Your task to perform on an android device: turn smart compose on in the gmail app Image 0: 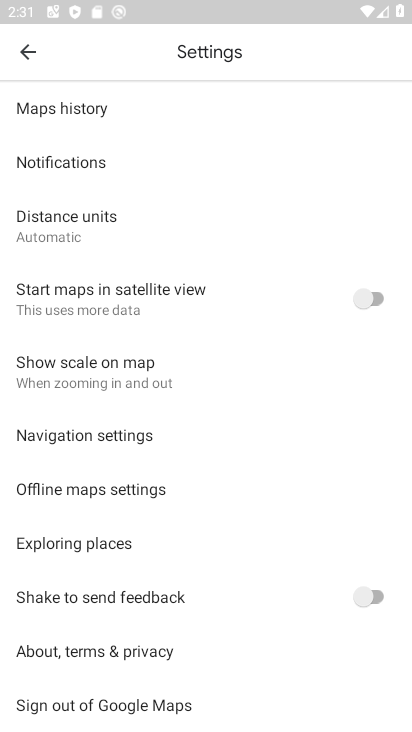
Step 0: press home button
Your task to perform on an android device: turn smart compose on in the gmail app Image 1: 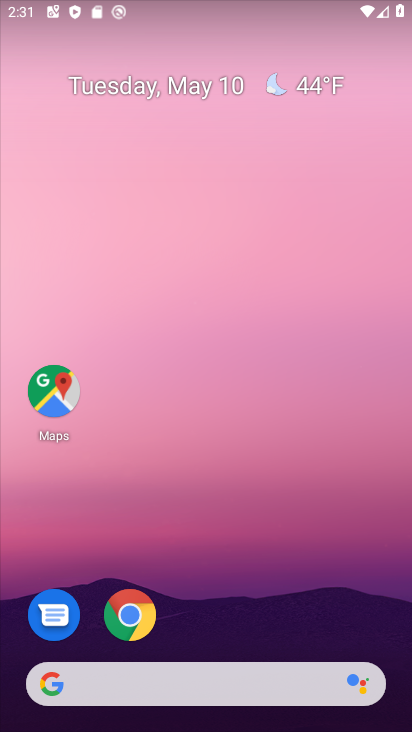
Step 1: drag from (256, 617) to (281, 89)
Your task to perform on an android device: turn smart compose on in the gmail app Image 2: 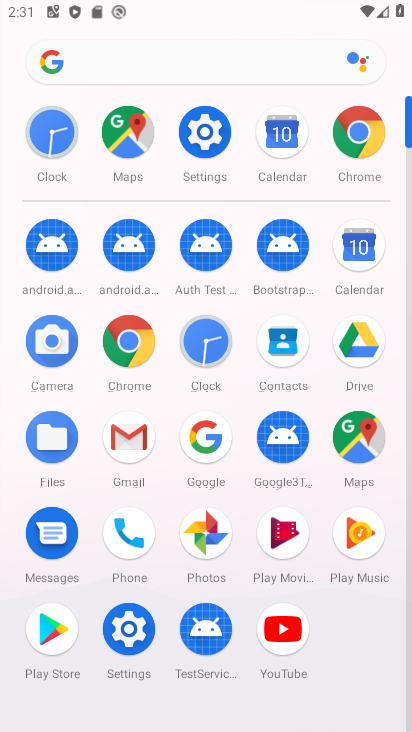
Step 2: click (132, 432)
Your task to perform on an android device: turn smart compose on in the gmail app Image 3: 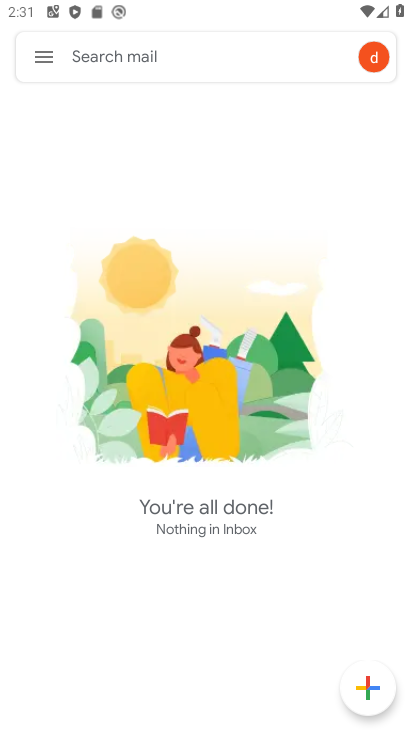
Step 3: click (38, 54)
Your task to perform on an android device: turn smart compose on in the gmail app Image 4: 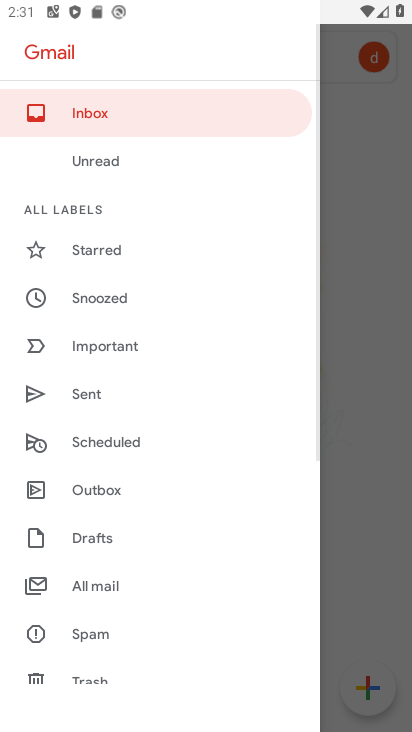
Step 4: drag from (140, 624) to (168, 163)
Your task to perform on an android device: turn smart compose on in the gmail app Image 5: 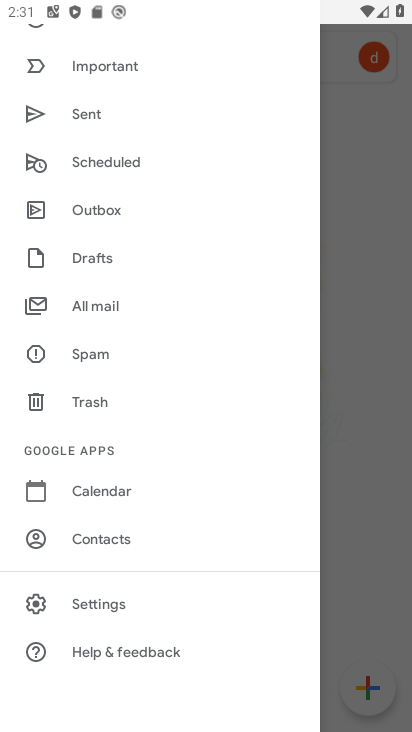
Step 5: click (91, 592)
Your task to perform on an android device: turn smart compose on in the gmail app Image 6: 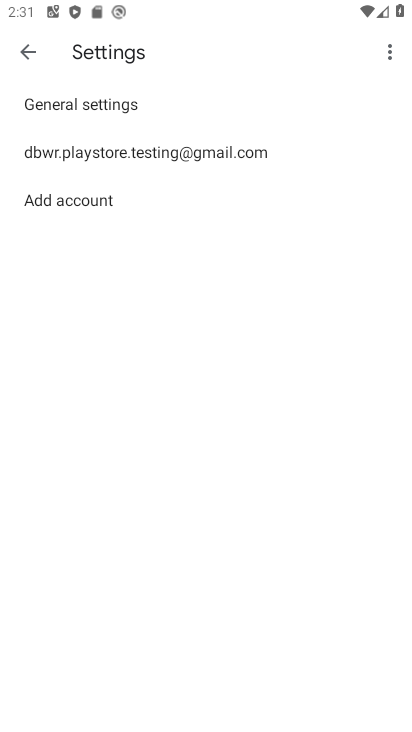
Step 6: click (127, 148)
Your task to perform on an android device: turn smart compose on in the gmail app Image 7: 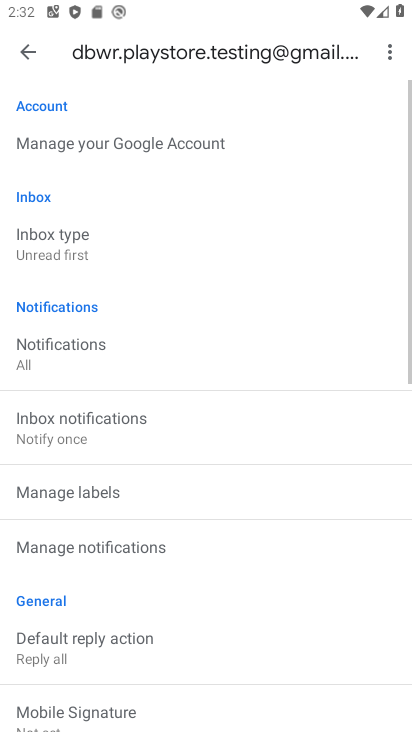
Step 7: task complete